Your task to perform on an android device: change the upload size in google photos Image 0: 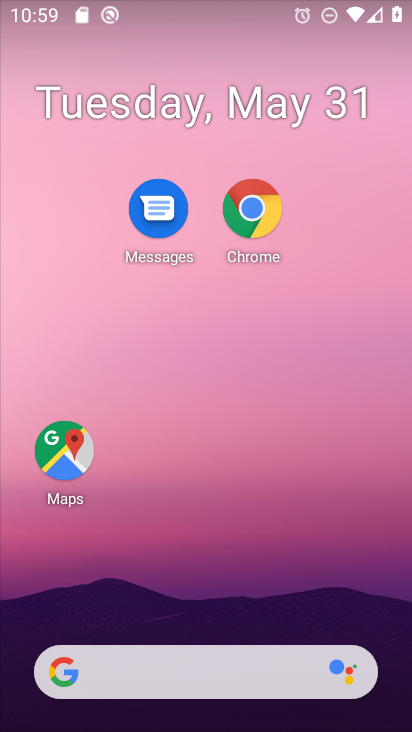
Step 0: press home button
Your task to perform on an android device: change the upload size in google photos Image 1: 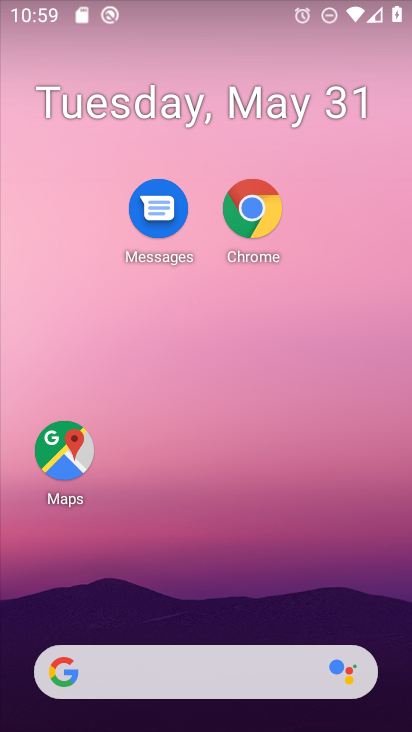
Step 1: drag from (224, 619) to (209, 49)
Your task to perform on an android device: change the upload size in google photos Image 2: 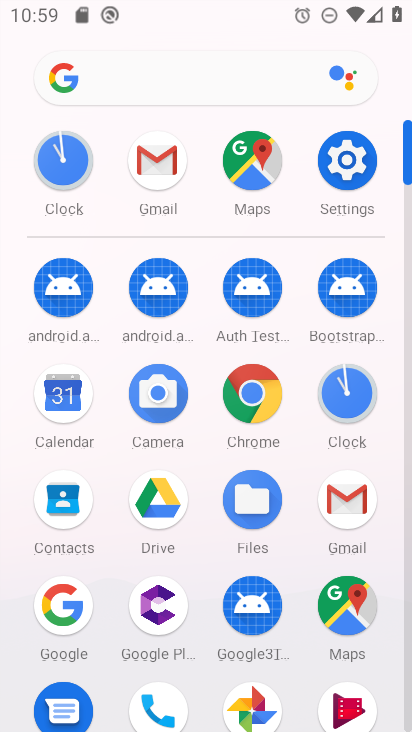
Step 2: click (247, 698)
Your task to perform on an android device: change the upload size in google photos Image 3: 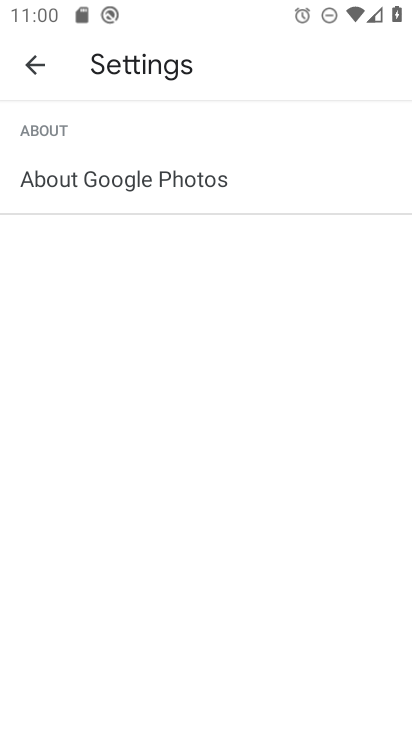
Step 3: click (41, 63)
Your task to perform on an android device: change the upload size in google photos Image 4: 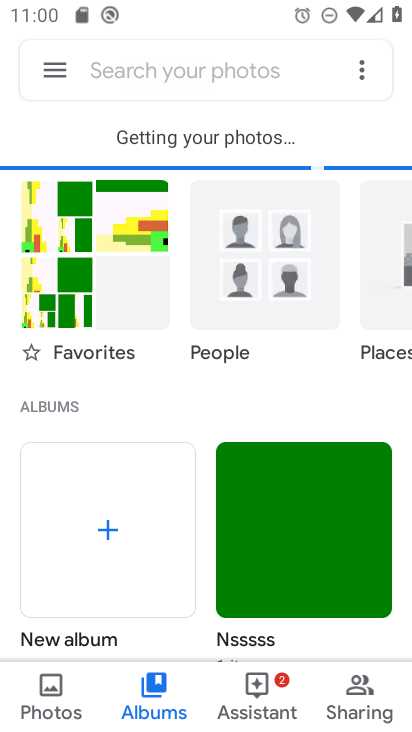
Step 4: click (47, 63)
Your task to perform on an android device: change the upload size in google photos Image 5: 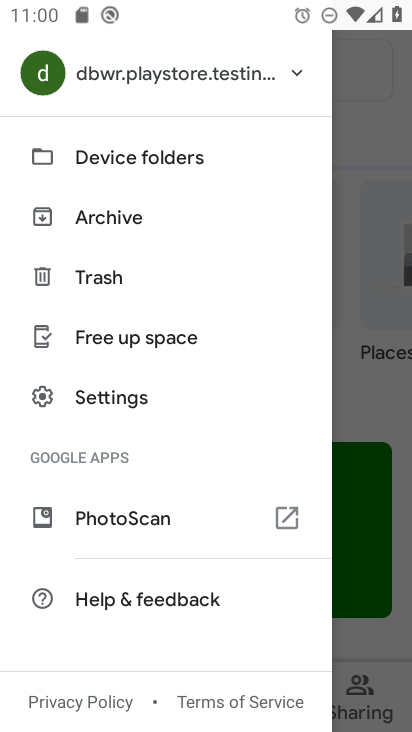
Step 5: click (154, 397)
Your task to perform on an android device: change the upload size in google photos Image 6: 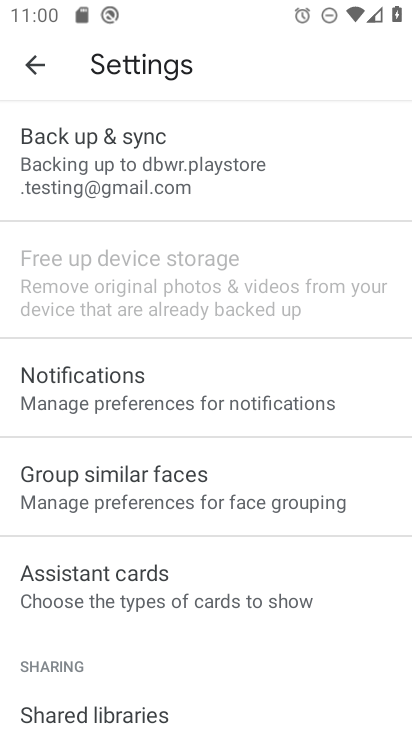
Step 6: click (193, 146)
Your task to perform on an android device: change the upload size in google photos Image 7: 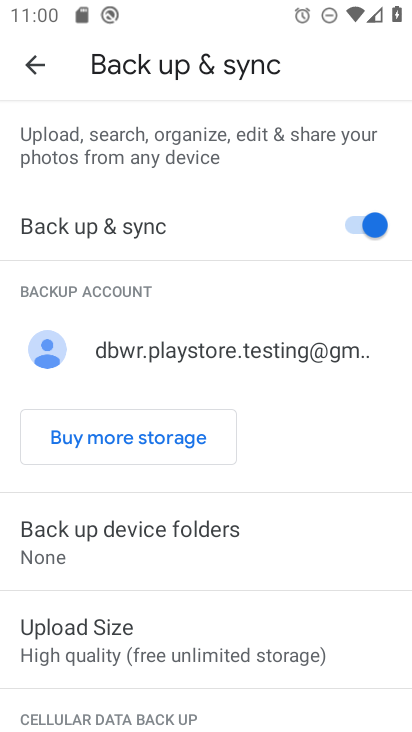
Step 7: click (167, 631)
Your task to perform on an android device: change the upload size in google photos Image 8: 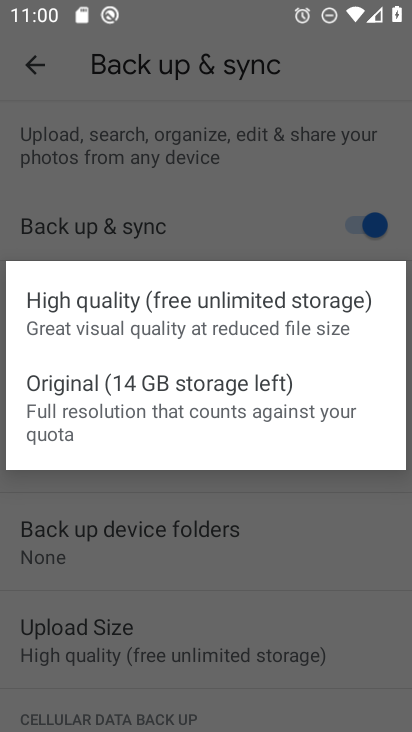
Step 8: click (109, 409)
Your task to perform on an android device: change the upload size in google photos Image 9: 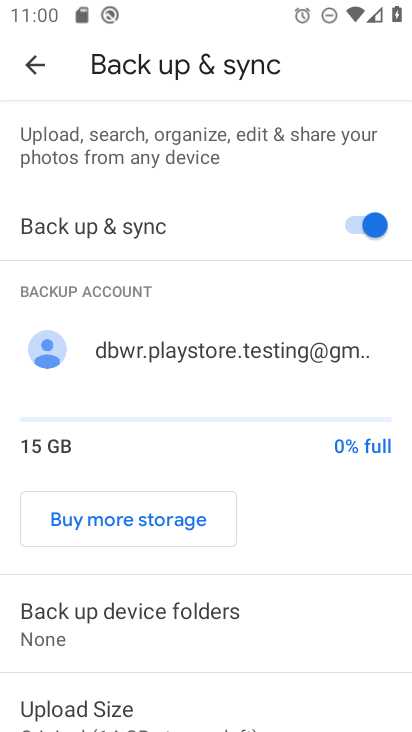
Step 9: task complete